Your task to perform on an android device: Open Google Maps Image 0: 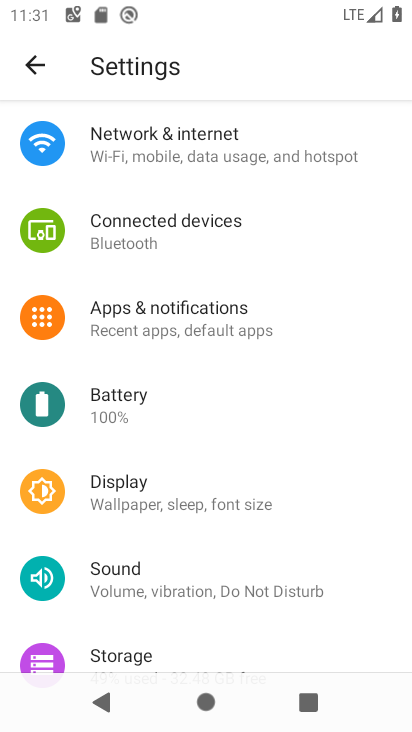
Step 0: press home button
Your task to perform on an android device: Open Google Maps Image 1: 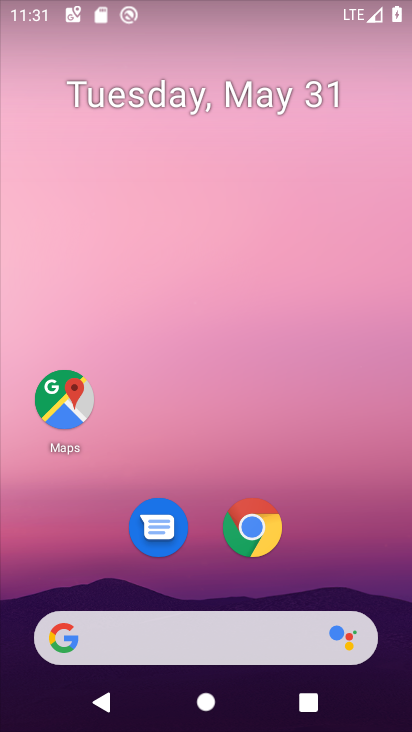
Step 1: click (67, 401)
Your task to perform on an android device: Open Google Maps Image 2: 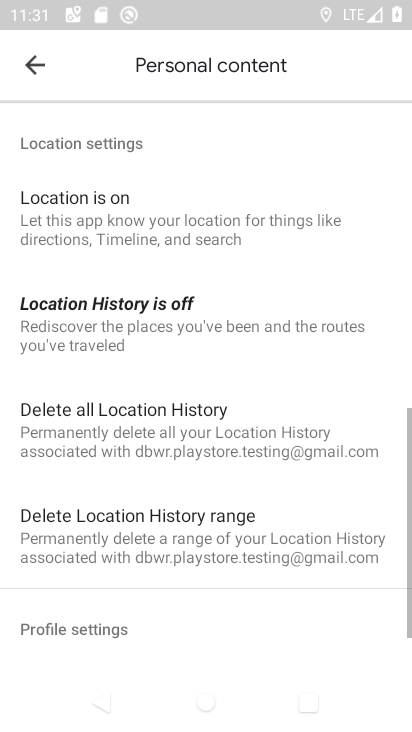
Step 2: click (37, 69)
Your task to perform on an android device: Open Google Maps Image 3: 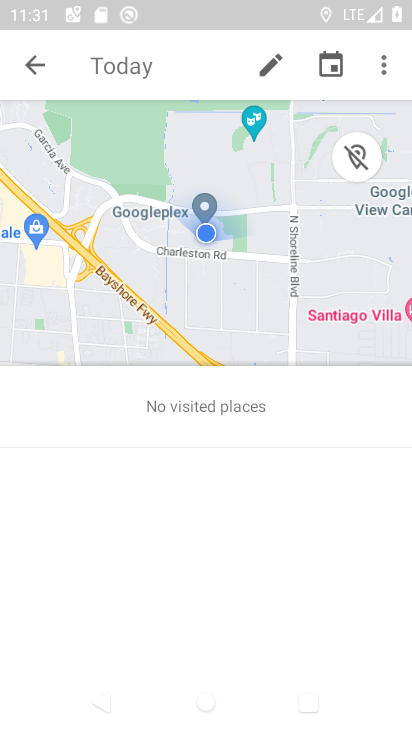
Step 3: click (37, 69)
Your task to perform on an android device: Open Google Maps Image 4: 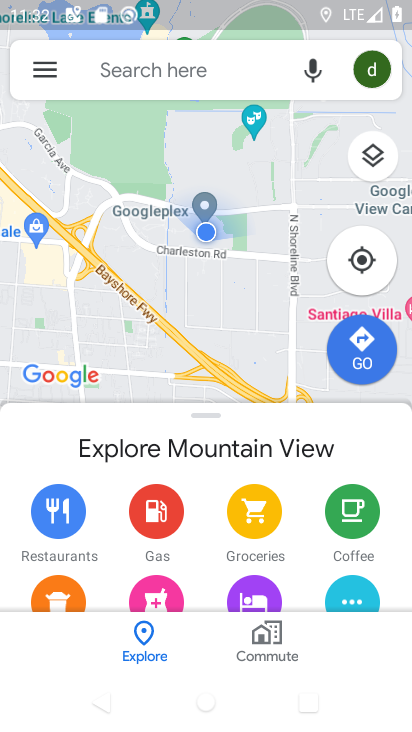
Step 4: task complete